Your task to perform on an android device: install app "Chime – Mobile Banking" Image 0: 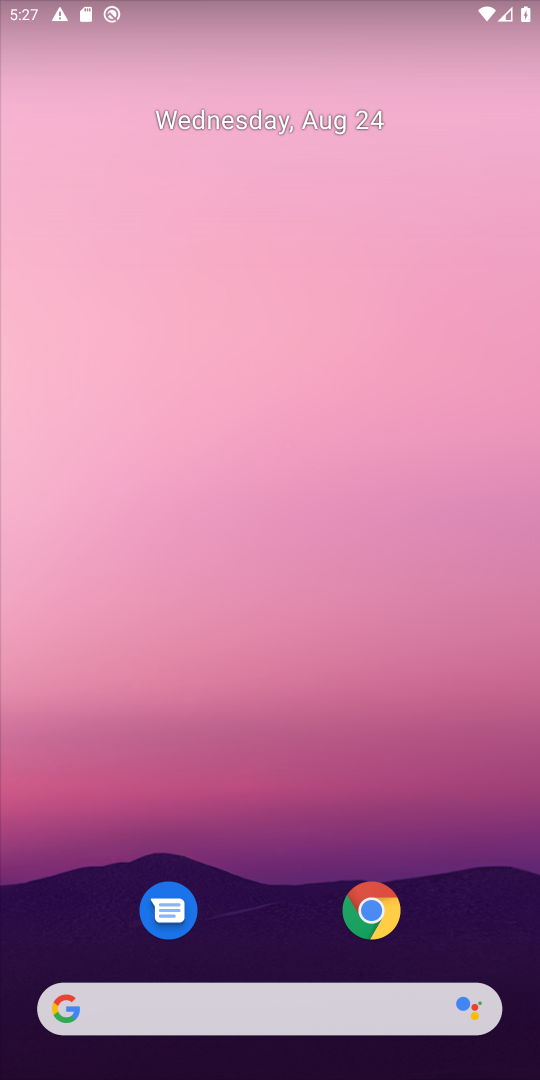
Step 0: drag from (230, 982) to (235, 192)
Your task to perform on an android device: install app "Chime – Mobile Banking" Image 1: 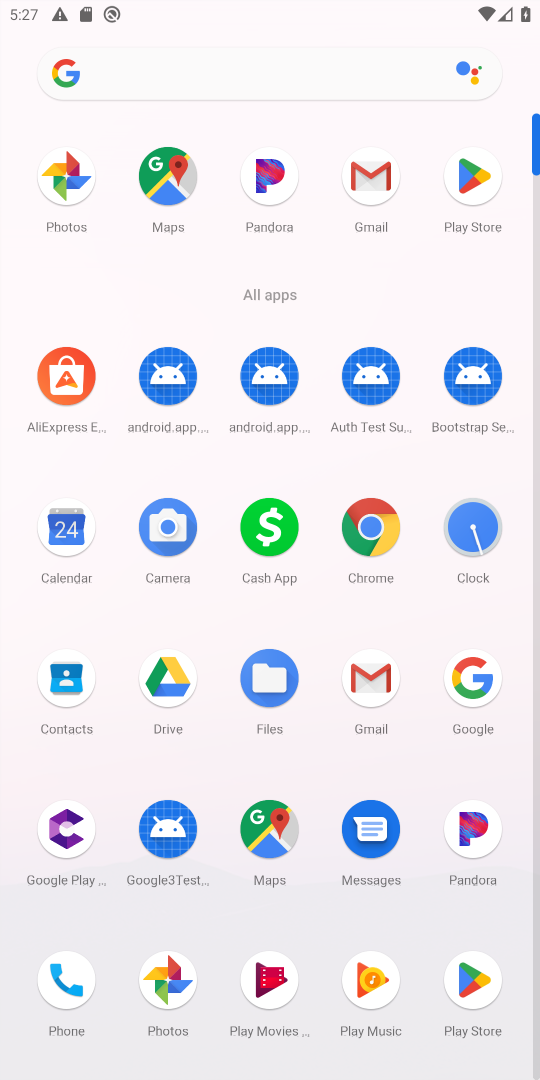
Step 1: click (458, 186)
Your task to perform on an android device: install app "Chime – Mobile Banking" Image 2: 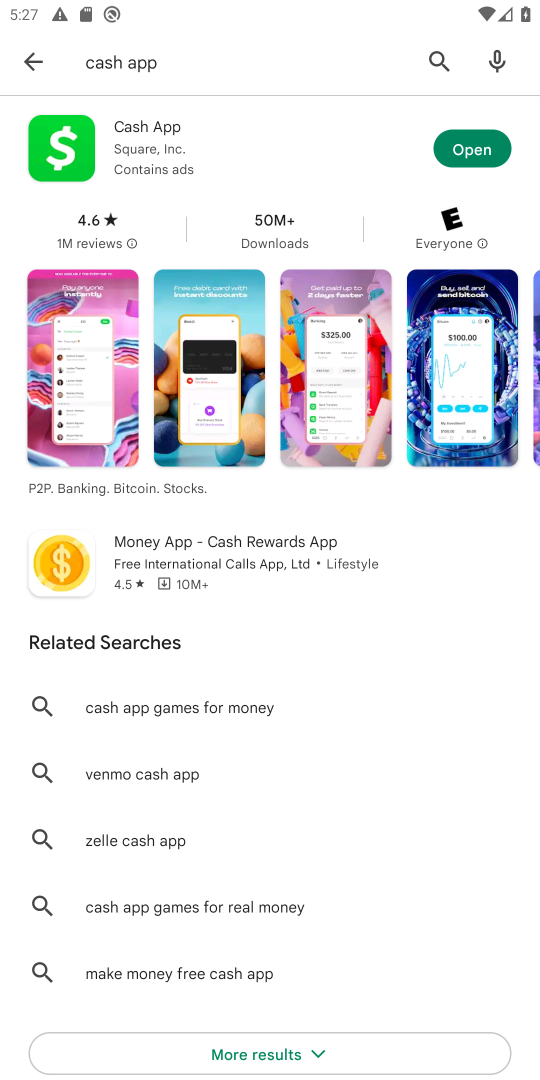
Step 2: click (426, 67)
Your task to perform on an android device: install app "Chime – Mobile Banking" Image 3: 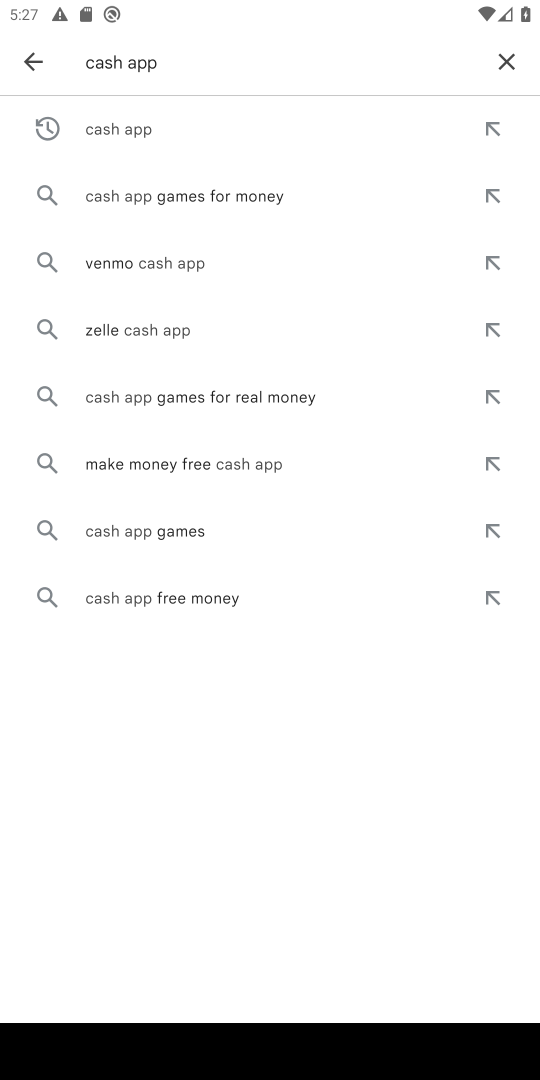
Step 3: click (518, 65)
Your task to perform on an android device: install app "Chime – Mobile Banking" Image 4: 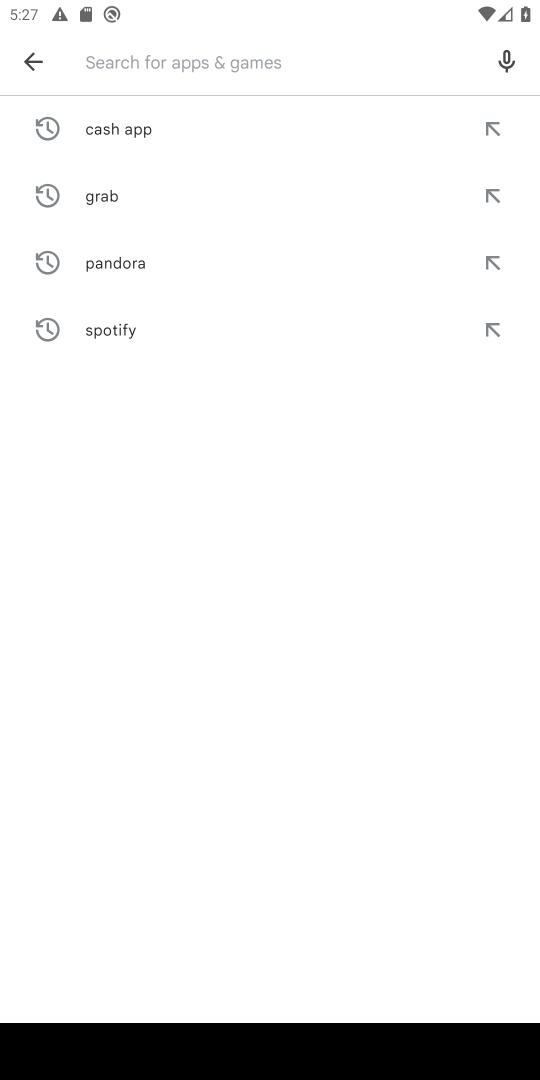
Step 4: type "chime mobile banking'"
Your task to perform on an android device: install app "Chime – Mobile Banking" Image 5: 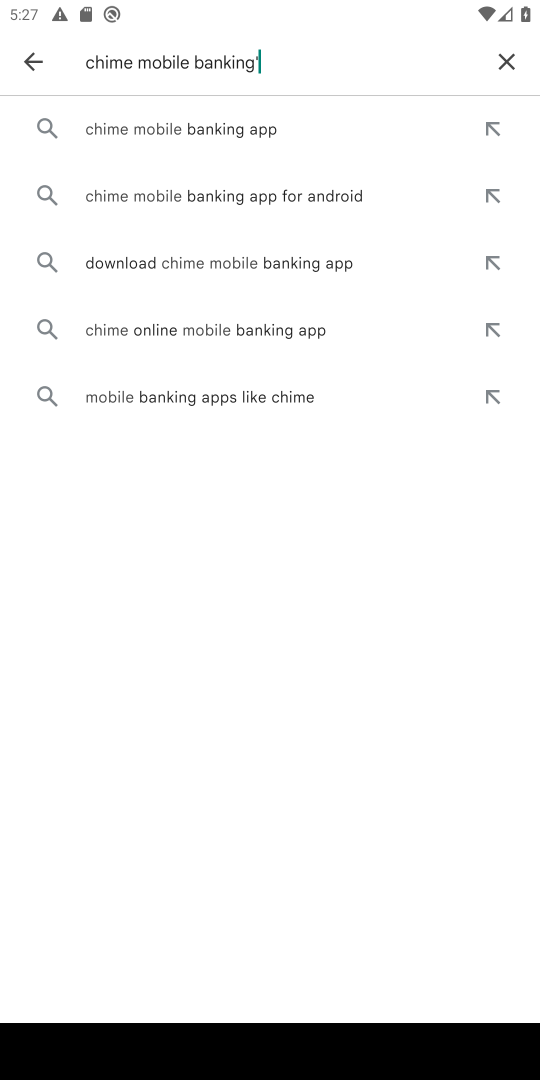
Step 5: click (226, 141)
Your task to perform on an android device: install app "Chime – Mobile Banking" Image 6: 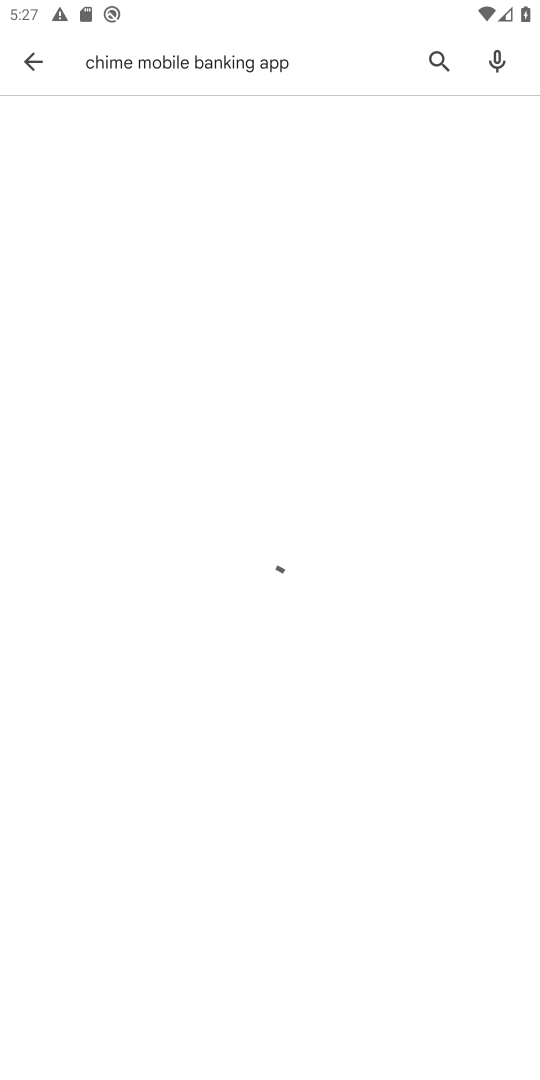
Step 6: click (226, 141)
Your task to perform on an android device: install app "Chime – Mobile Banking" Image 7: 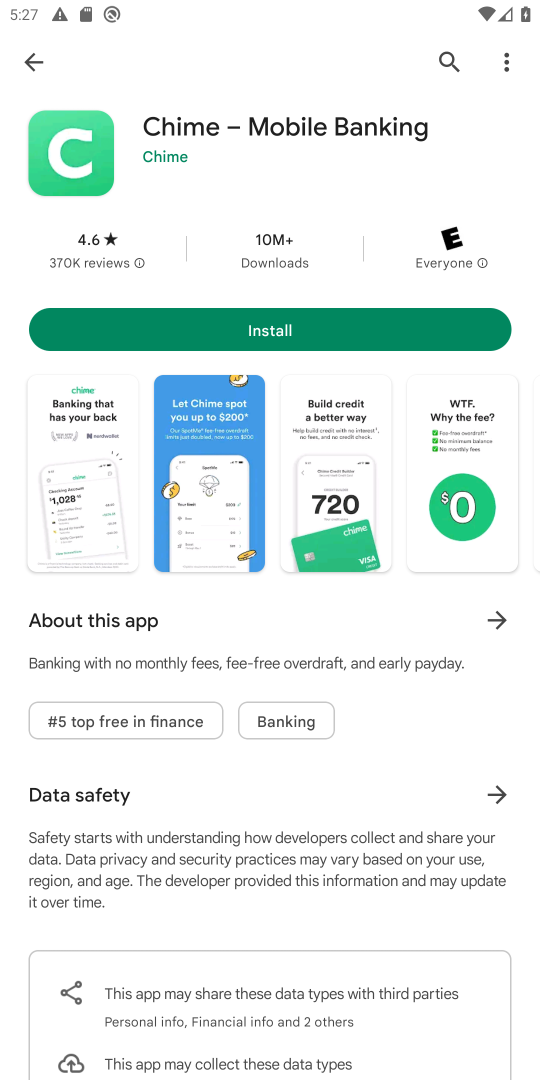
Step 7: click (471, 159)
Your task to perform on an android device: install app "Chime – Mobile Banking" Image 8: 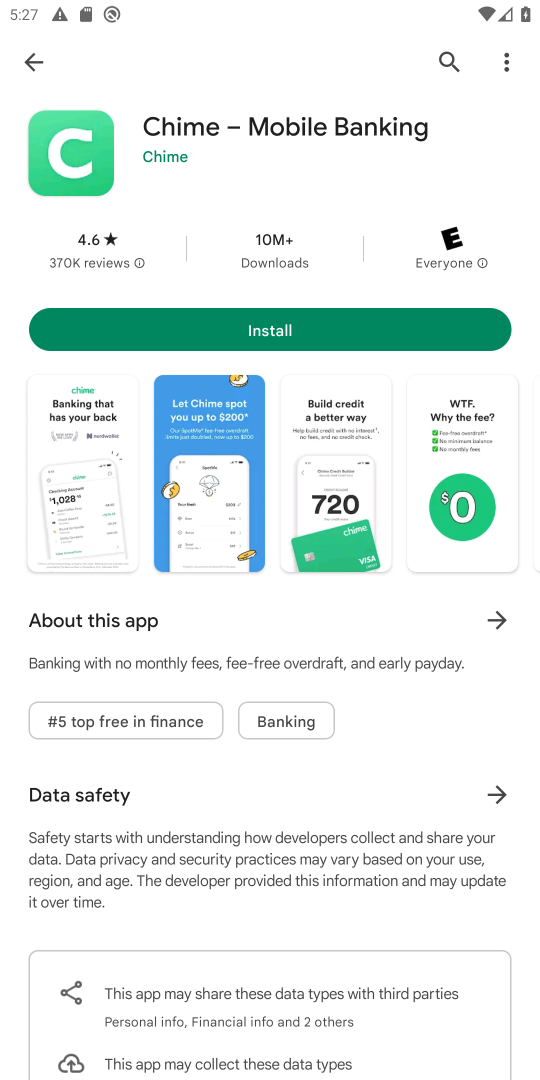
Step 8: click (369, 335)
Your task to perform on an android device: install app "Chime – Mobile Banking" Image 9: 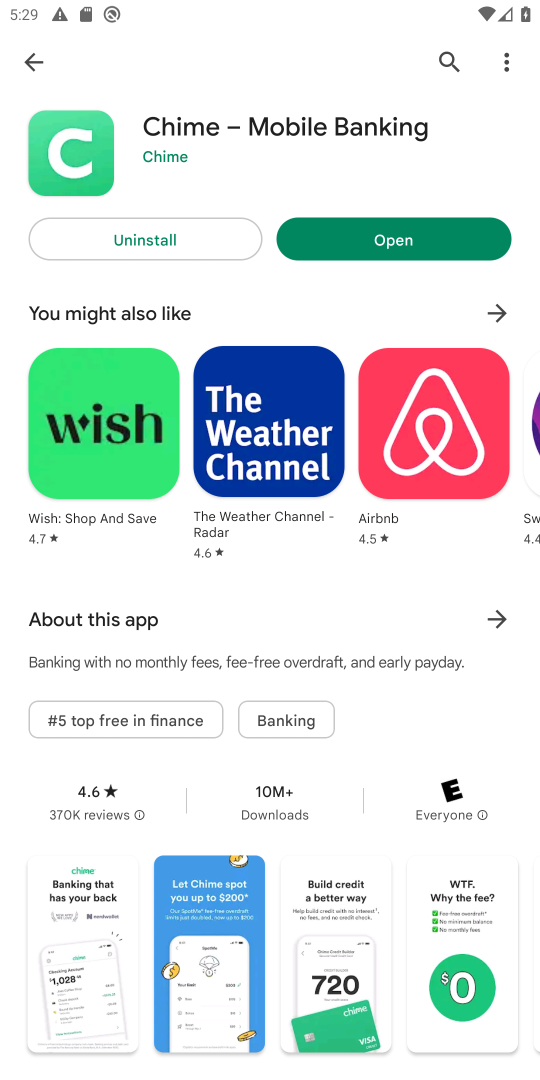
Step 9: task complete